Your task to perform on an android device: install app "Indeed Job Search" Image 0: 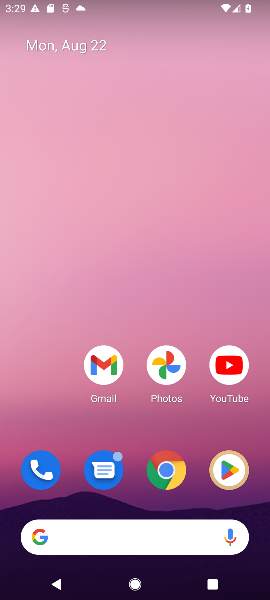
Step 0: drag from (119, 487) to (134, 10)
Your task to perform on an android device: install app "Indeed Job Search" Image 1: 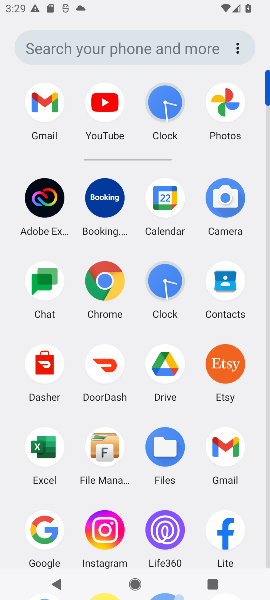
Step 1: drag from (97, 532) to (158, 85)
Your task to perform on an android device: install app "Indeed Job Search" Image 2: 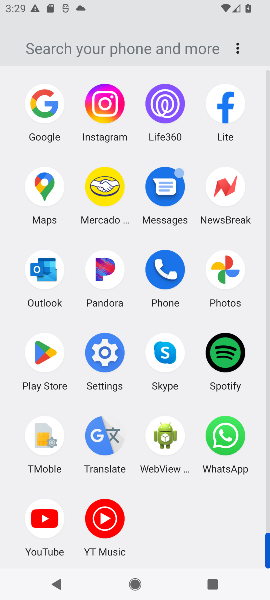
Step 2: click (38, 350)
Your task to perform on an android device: install app "Indeed Job Search" Image 3: 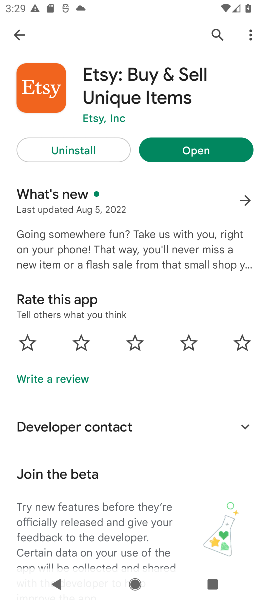
Step 3: click (11, 27)
Your task to perform on an android device: install app "Indeed Job Search" Image 4: 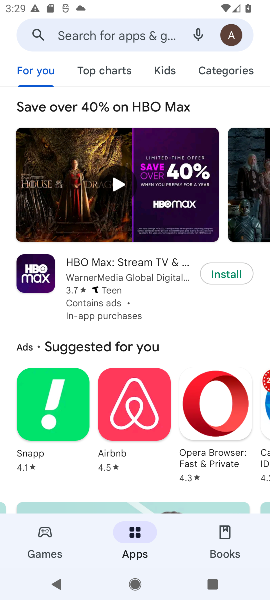
Step 4: click (120, 27)
Your task to perform on an android device: install app "Indeed Job Search" Image 5: 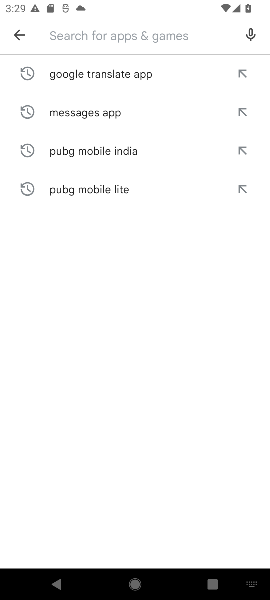
Step 5: type "Indeed Job Search "
Your task to perform on an android device: install app "Indeed Job Search" Image 6: 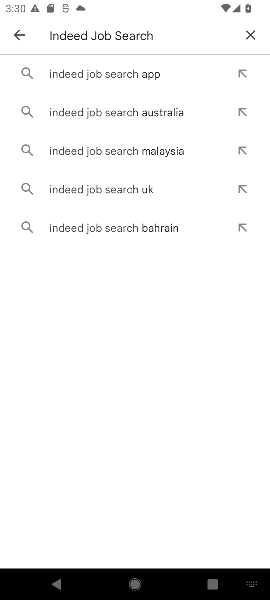
Step 6: click (86, 70)
Your task to perform on an android device: install app "Indeed Job Search" Image 7: 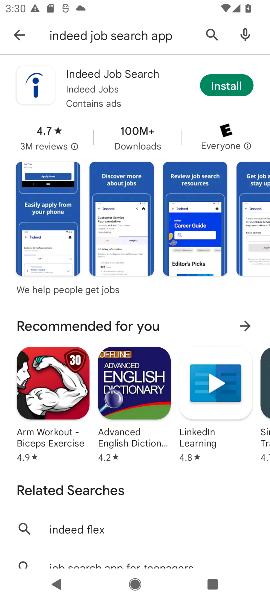
Step 7: click (241, 88)
Your task to perform on an android device: install app "Indeed Job Search" Image 8: 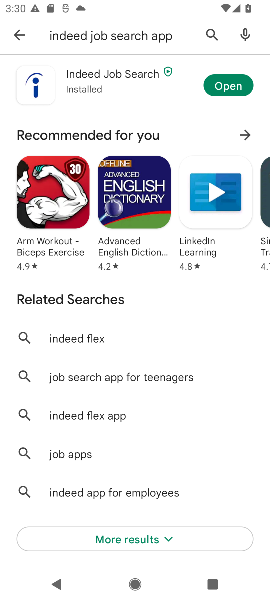
Step 8: click (228, 85)
Your task to perform on an android device: install app "Indeed Job Search" Image 9: 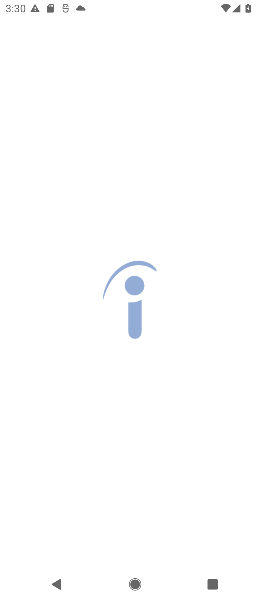
Step 9: task complete